Your task to perform on an android device: turn on data saver in the chrome app Image 0: 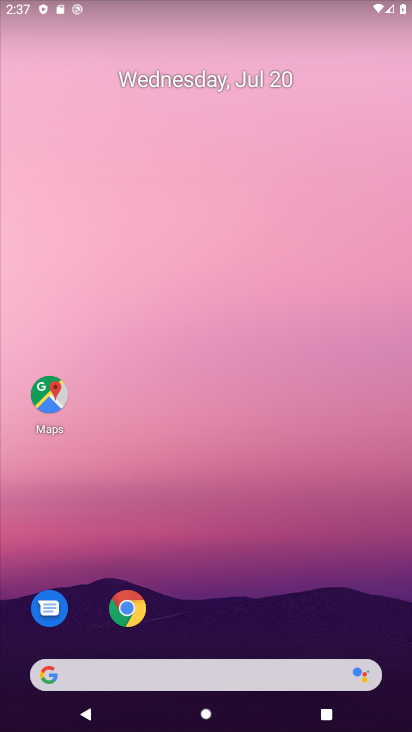
Step 0: drag from (334, 465) to (278, 50)
Your task to perform on an android device: turn on data saver in the chrome app Image 1: 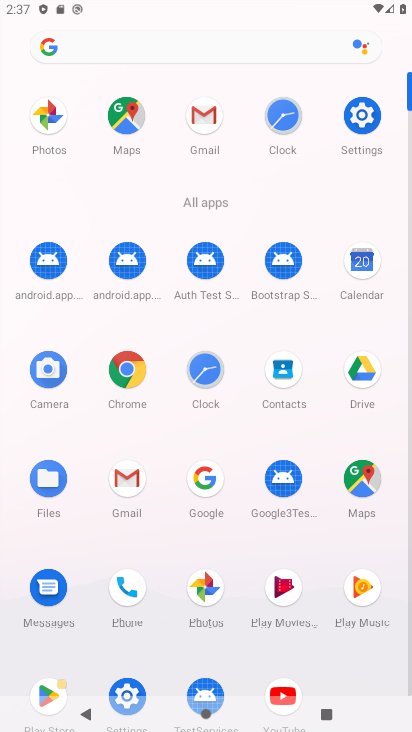
Step 1: click (129, 361)
Your task to perform on an android device: turn on data saver in the chrome app Image 2: 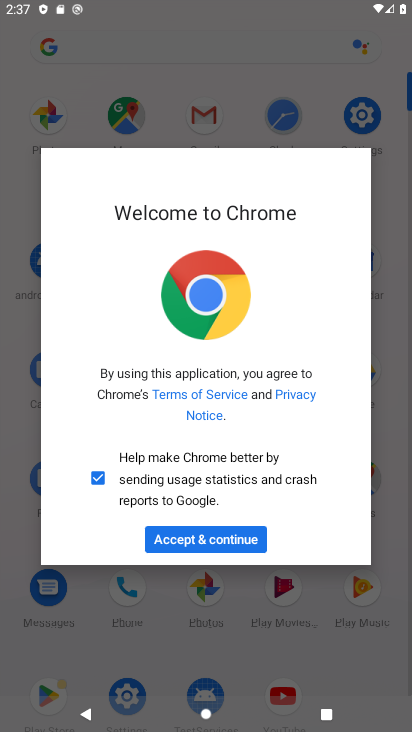
Step 2: click (218, 535)
Your task to perform on an android device: turn on data saver in the chrome app Image 3: 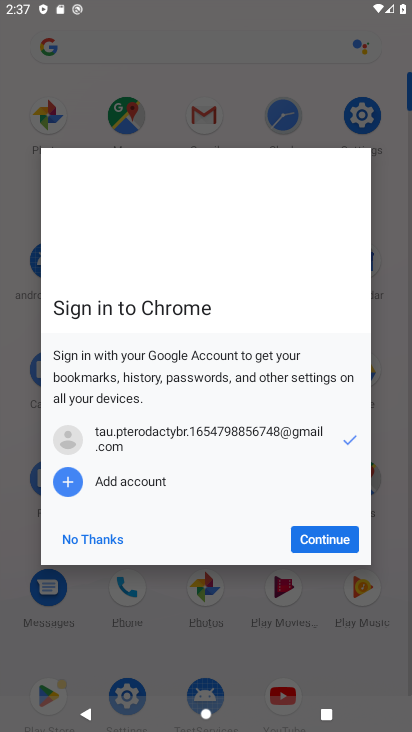
Step 3: click (310, 533)
Your task to perform on an android device: turn on data saver in the chrome app Image 4: 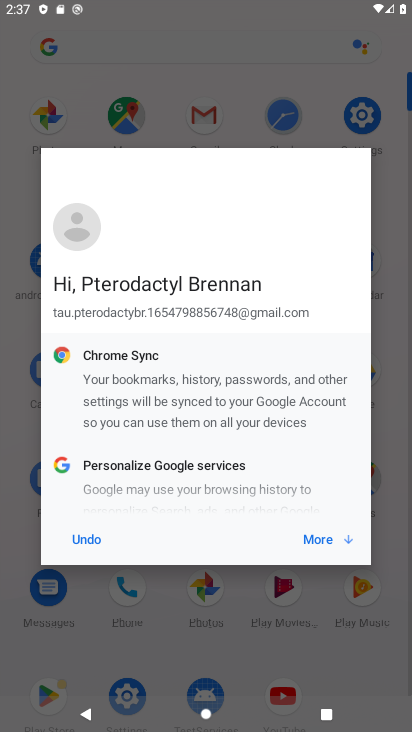
Step 4: click (316, 537)
Your task to perform on an android device: turn on data saver in the chrome app Image 5: 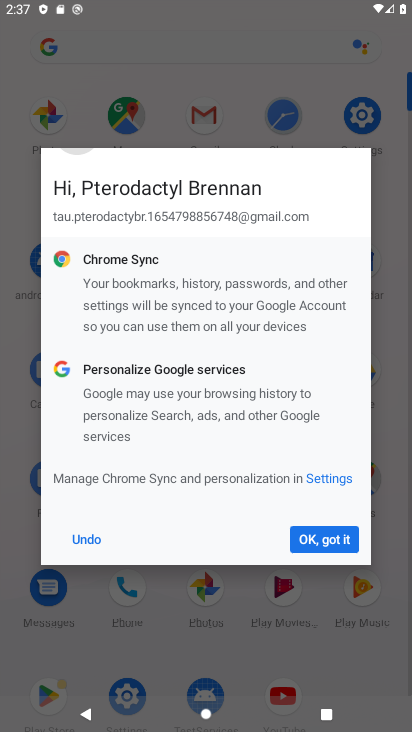
Step 5: click (340, 547)
Your task to perform on an android device: turn on data saver in the chrome app Image 6: 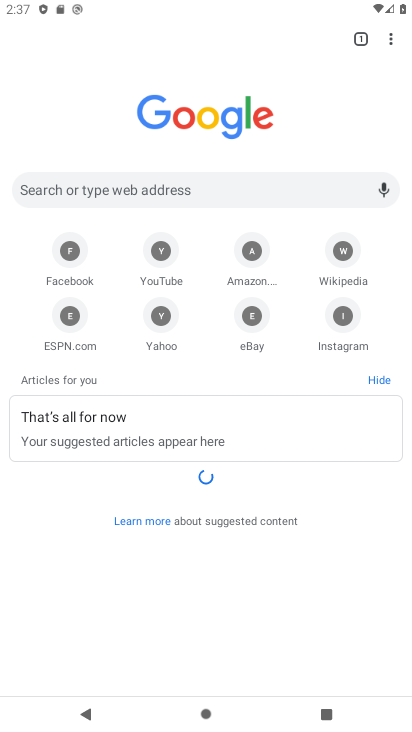
Step 6: drag from (391, 35) to (281, 335)
Your task to perform on an android device: turn on data saver in the chrome app Image 7: 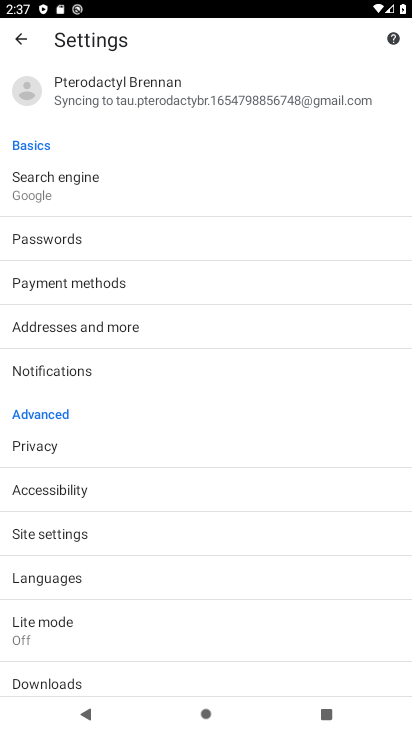
Step 7: click (60, 538)
Your task to perform on an android device: turn on data saver in the chrome app Image 8: 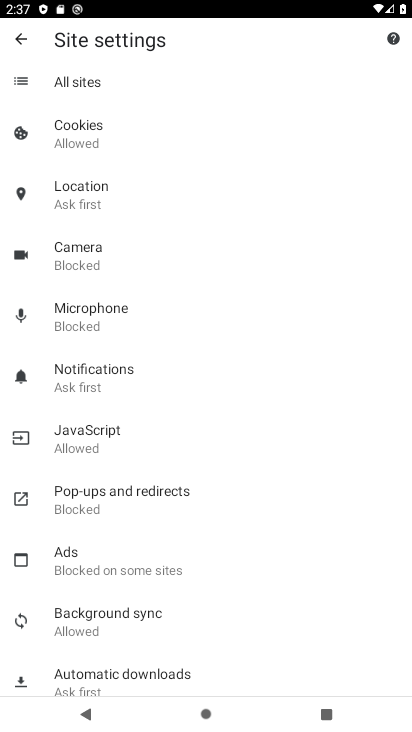
Step 8: click (20, 36)
Your task to perform on an android device: turn on data saver in the chrome app Image 9: 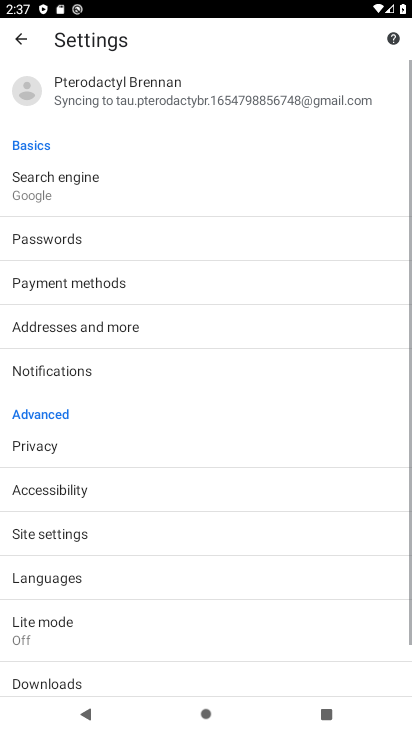
Step 9: click (98, 635)
Your task to perform on an android device: turn on data saver in the chrome app Image 10: 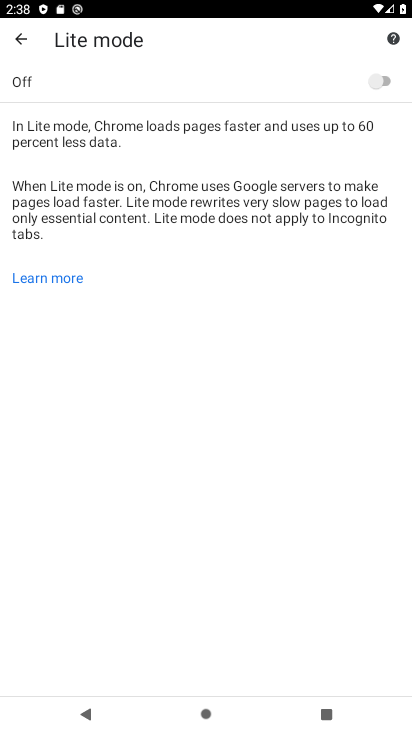
Step 10: click (383, 81)
Your task to perform on an android device: turn on data saver in the chrome app Image 11: 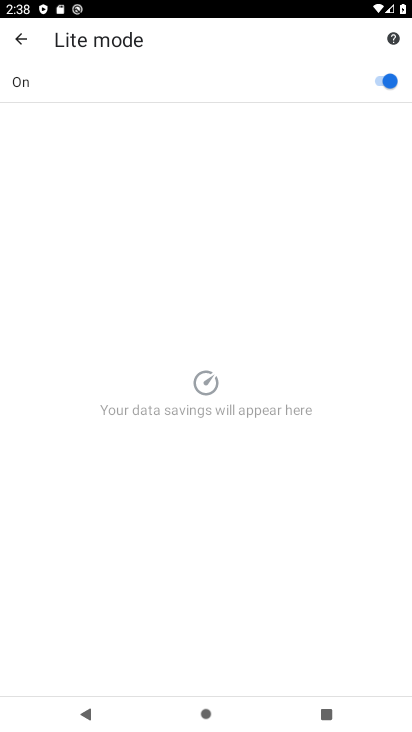
Step 11: task complete